Your task to perform on an android device: delete browsing data in the chrome app Image 0: 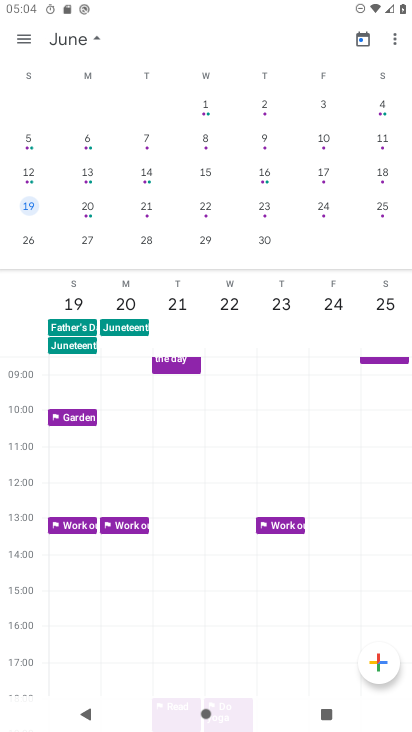
Step 0: press home button
Your task to perform on an android device: delete browsing data in the chrome app Image 1: 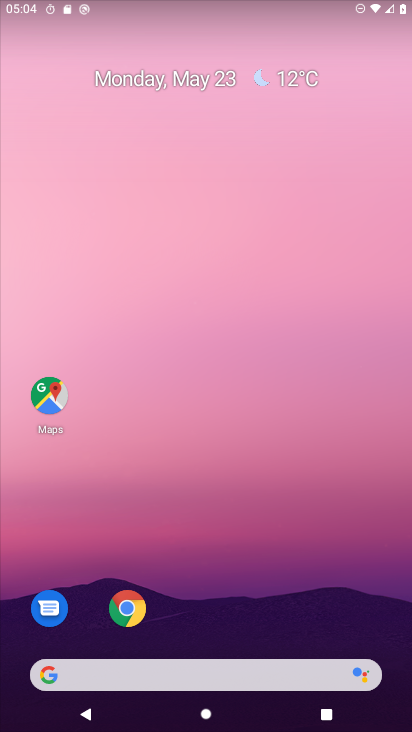
Step 1: click (132, 608)
Your task to perform on an android device: delete browsing data in the chrome app Image 2: 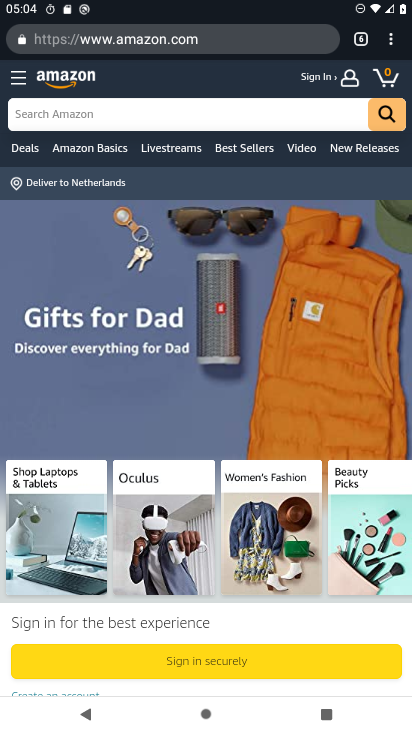
Step 2: click (391, 37)
Your task to perform on an android device: delete browsing data in the chrome app Image 3: 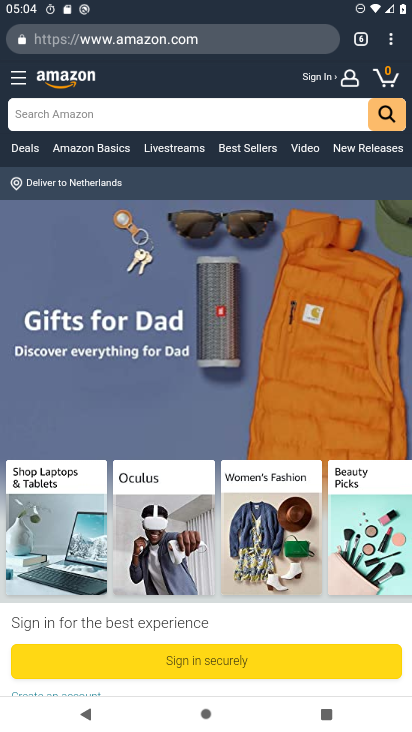
Step 3: click (389, 31)
Your task to perform on an android device: delete browsing data in the chrome app Image 4: 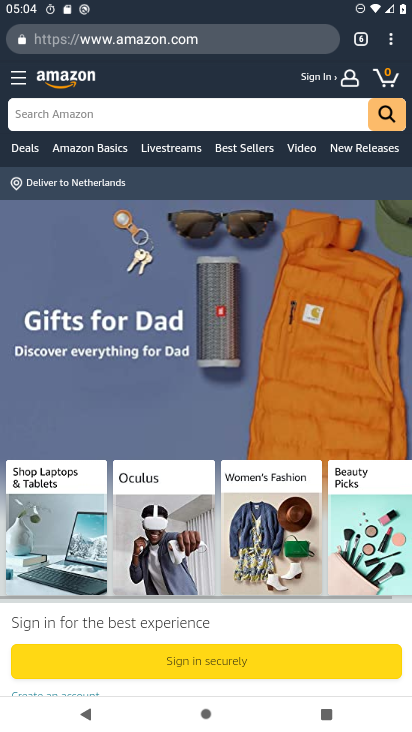
Step 4: click (389, 44)
Your task to perform on an android device: delete browsing data in the chrome app Image 5: 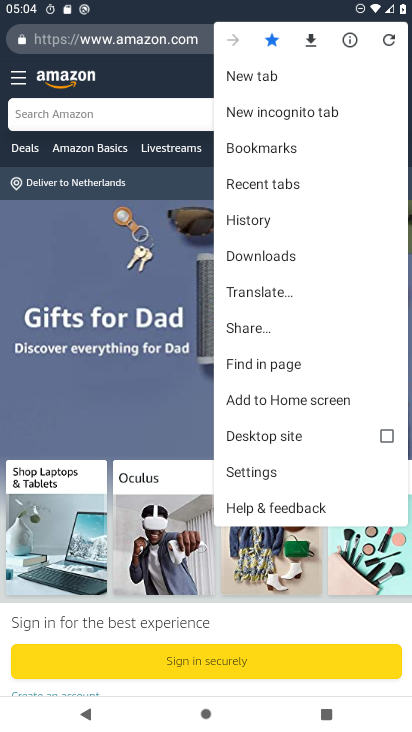
Step 5: click (279, 216)
Your task to perform on an android device: delete browsing data in the chrome app Image 6: 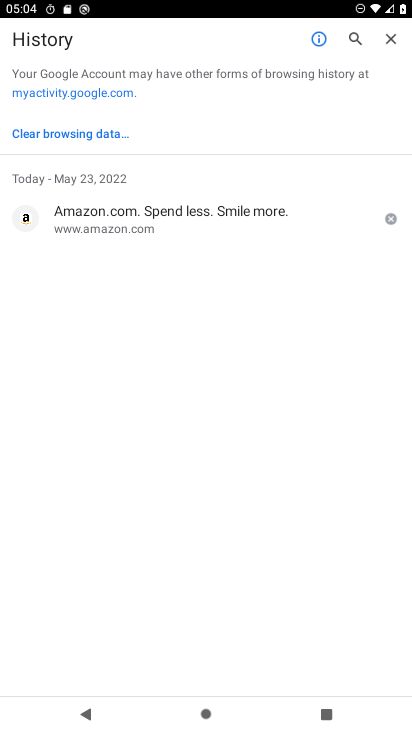
Step 6: click (100, 126)
Your task to perform on an android device: delete browsing data in the chrome app Image 7: 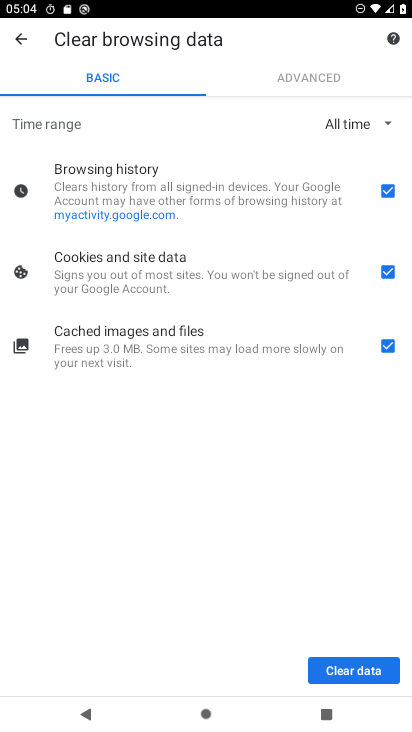
Step 7: click (377, 665)
Your task to perform on an android device: delete browsing data in the chrome app Image 8: 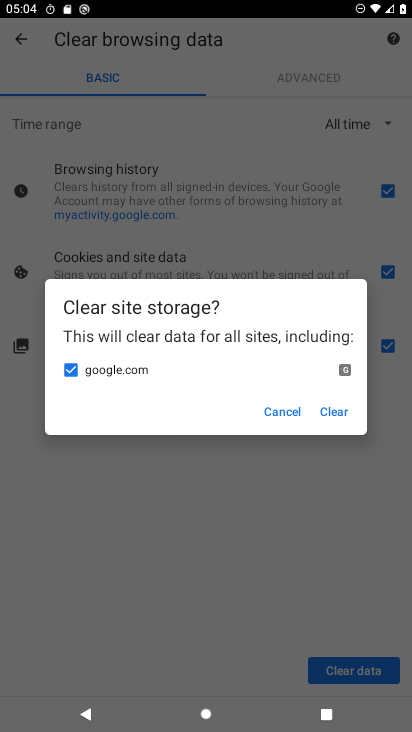
Step 8: click (343, 401)
Your task to perform on an android device: delete browsing data in the chrome app Image 9: 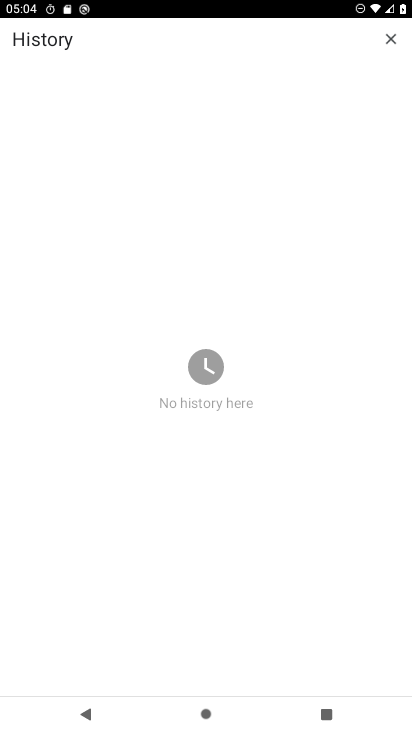
Step 9: task complete